Your task to perform on an android device: Open maps Image 0: 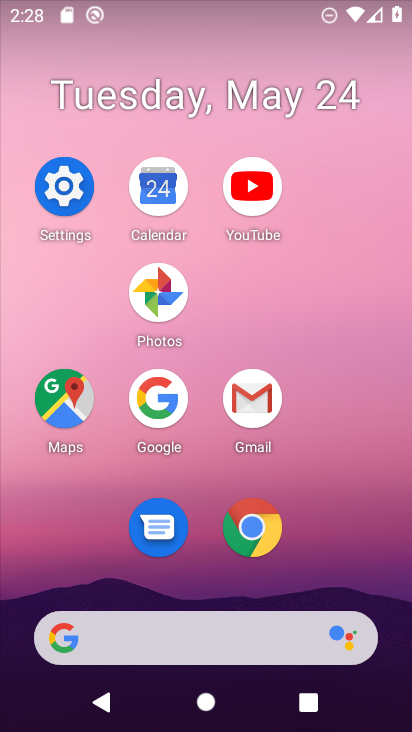
Step 0: click (69, 382)
Your task to perform on an android device: Open maps Image 1: 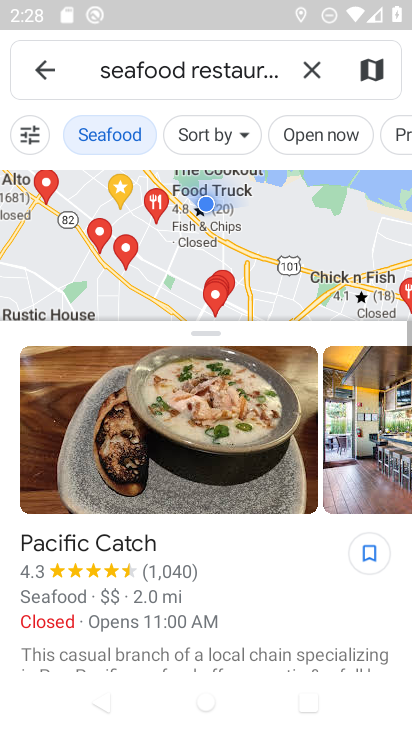
Step 1: task complete